Your task to perform on an android device: turn on javascript in the chrome app Image 0: 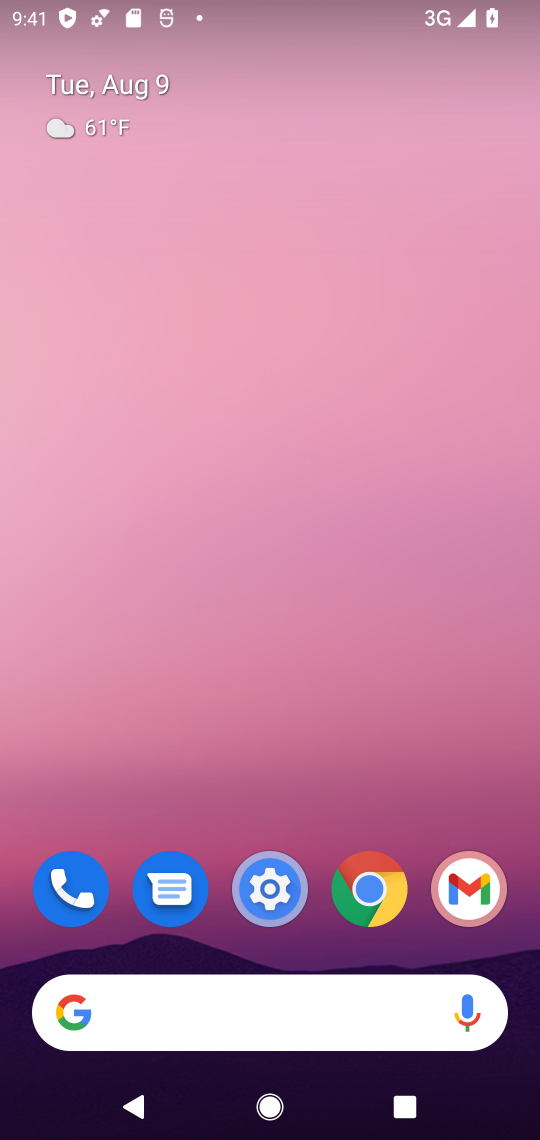
Step 0: drag from (292, 899) to (327, 21)
Your task to perform on an android device: turn on javascript in the chrome app Image 1: 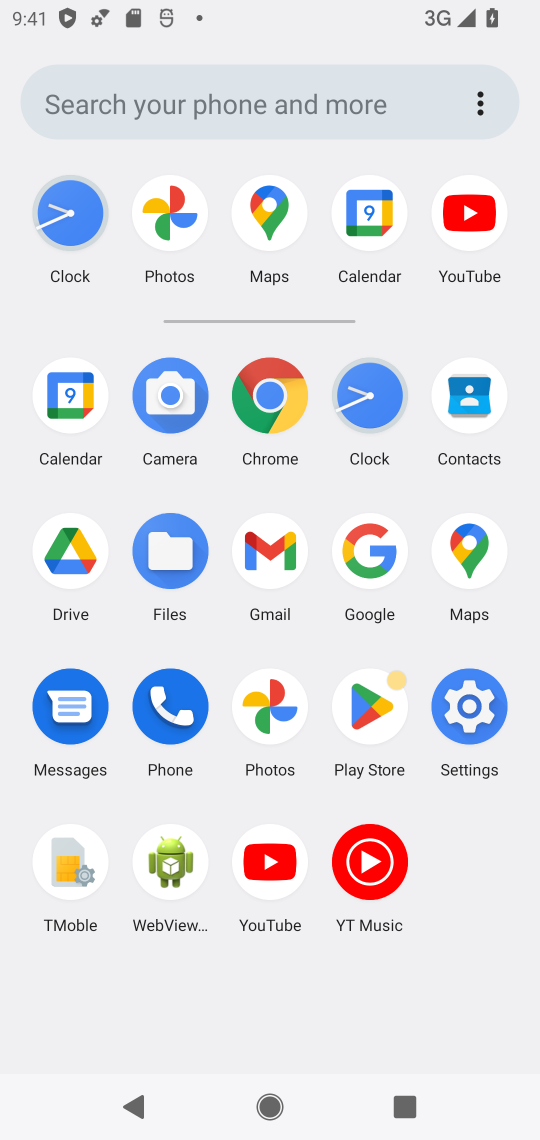
Step 1: click (290, 416)
Your task to perform on an android device: turn on javascript in the chrome app Image 2: 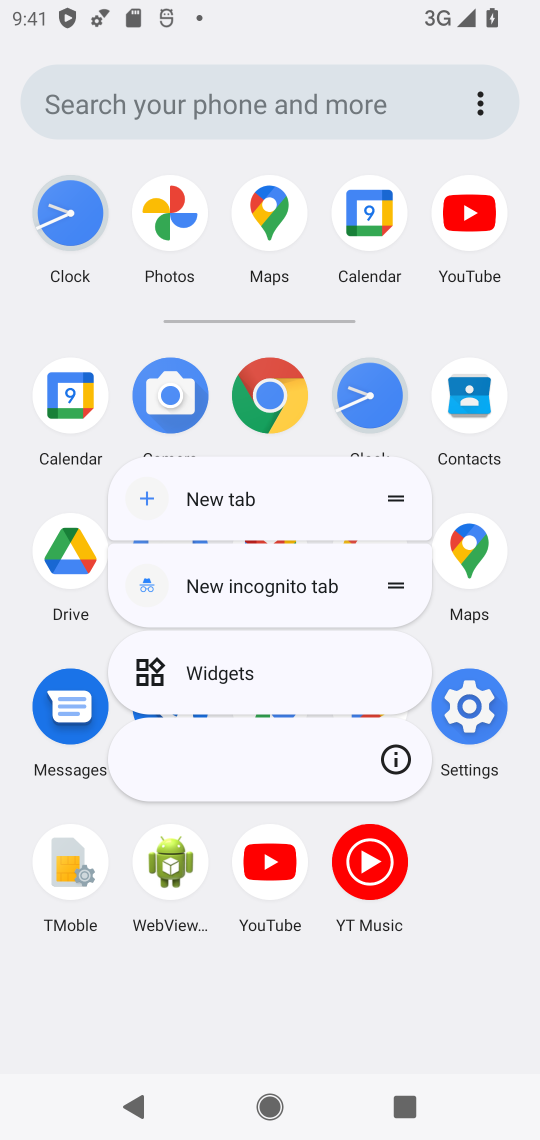
Step 2: click (261, 411)
Your task to perform on an android device: turn on javascript in the chrome app Image 3: 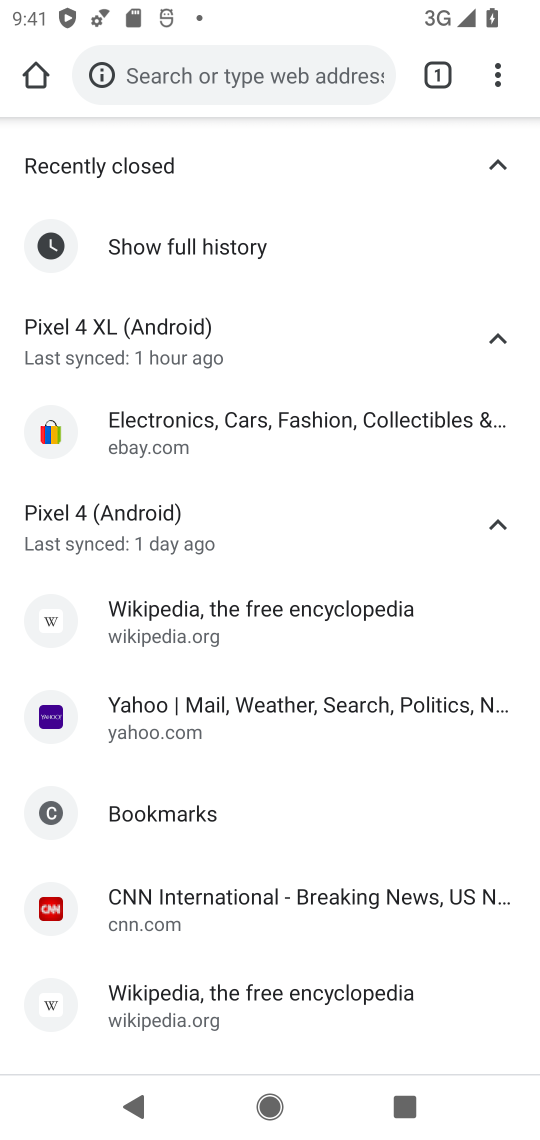
Step 3: drag from (487, 64) to (230, 821)
Your task to perform on an android device: turn on javascript in the chrome app Image 4: 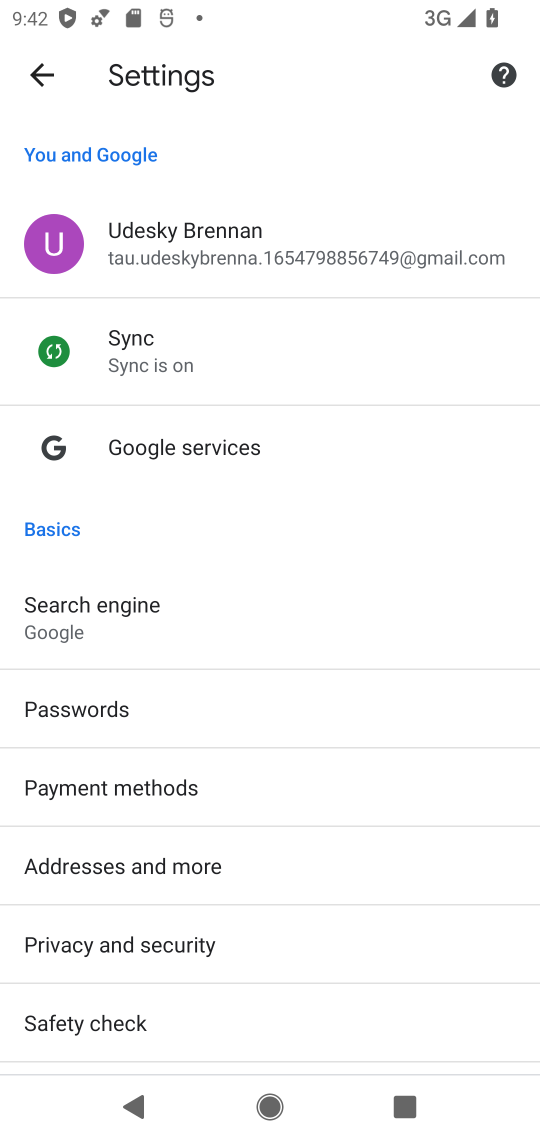
Step 4: drag from (115, 951) to (283, 288)
Your task to perform on an android device: turn on javascript in the chrome app Image 5: 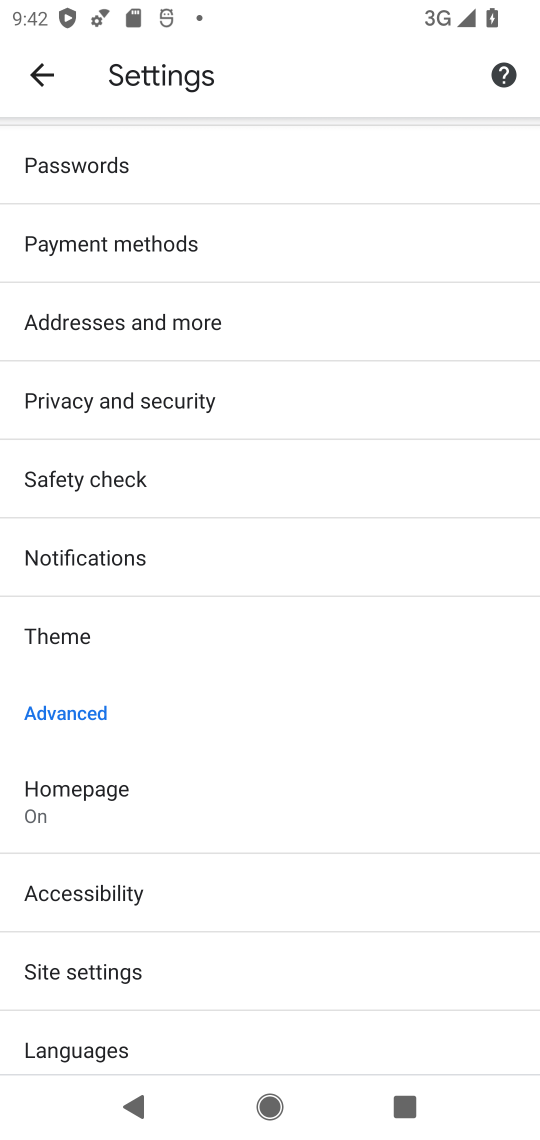
Step 5: drag from (173, 848) to (243, 229)
Your task to perform on an android device: turn on javascript in the chrome app Image 6: 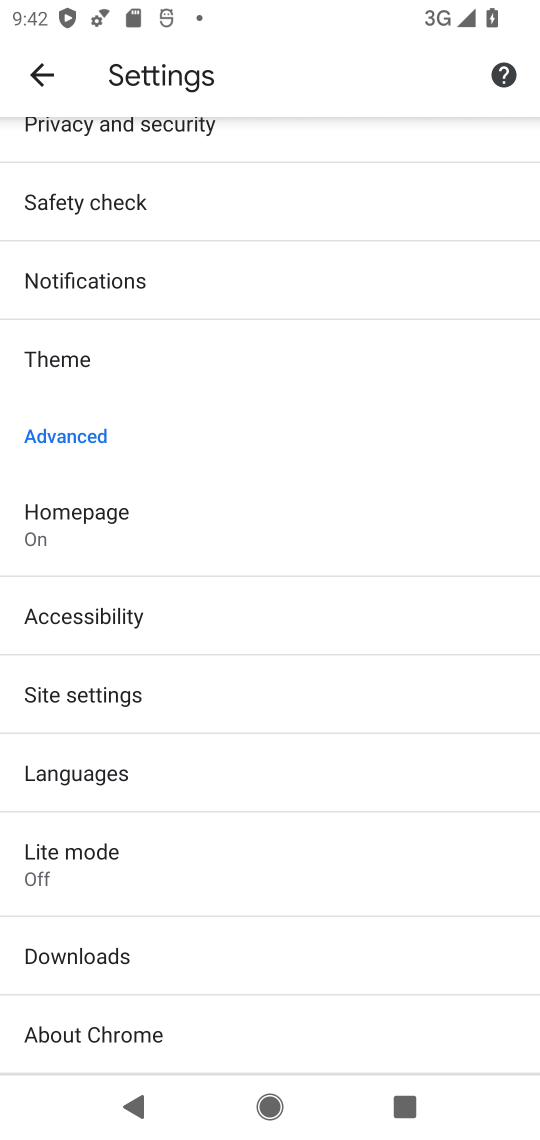
Step 6: click (113, 699)
Your task to perform on an android device: turn on javascript in the chrome app Image 7: 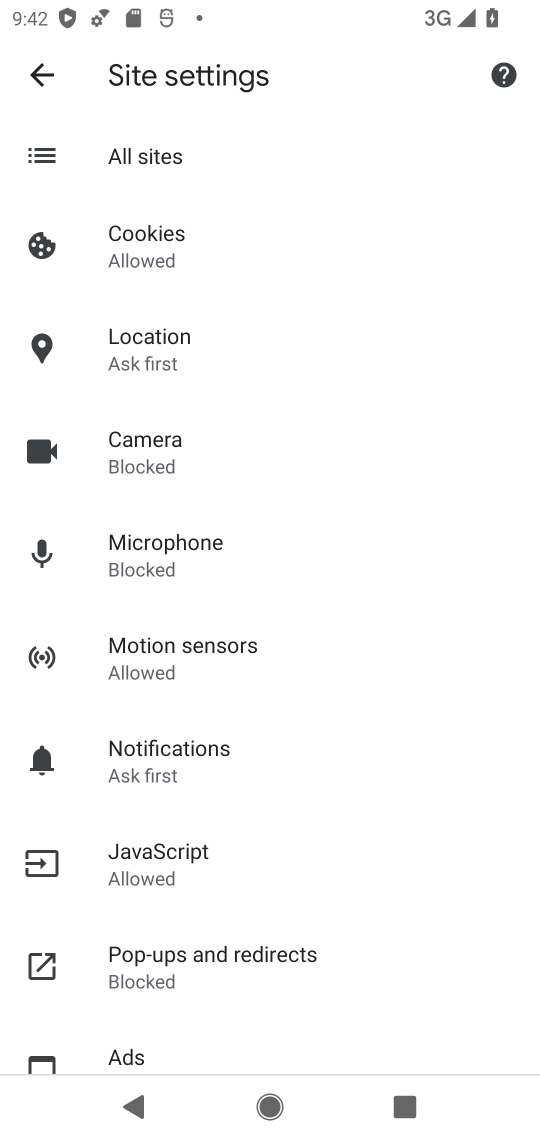
Step 7: click (97, 855)
Your task to perform on an android device: turn on javascript in the chrome app Image 8: 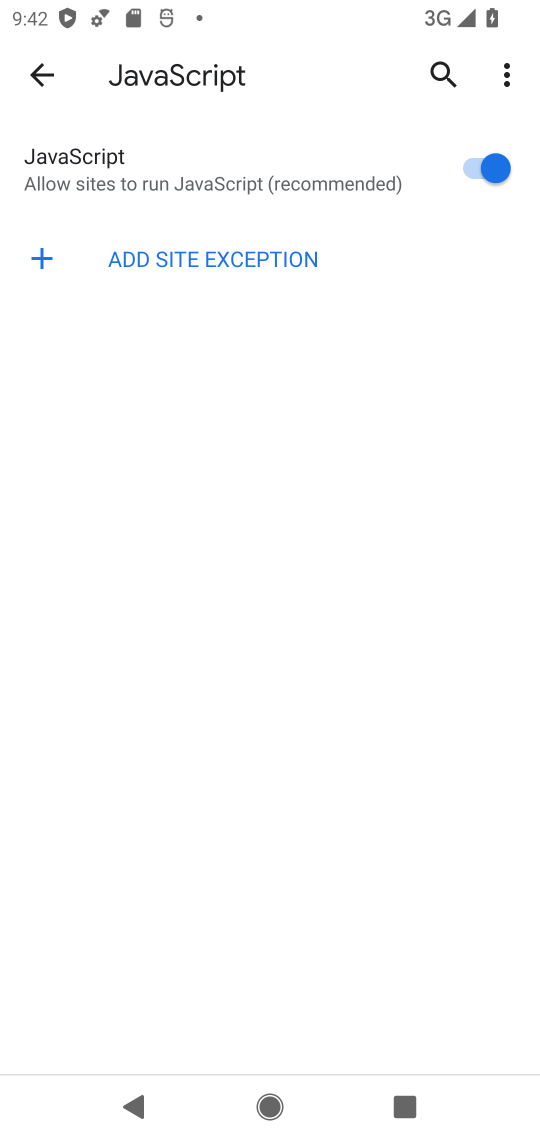
Step 8: task complete